Your task to perform on an android device: Check the weather Image 0: 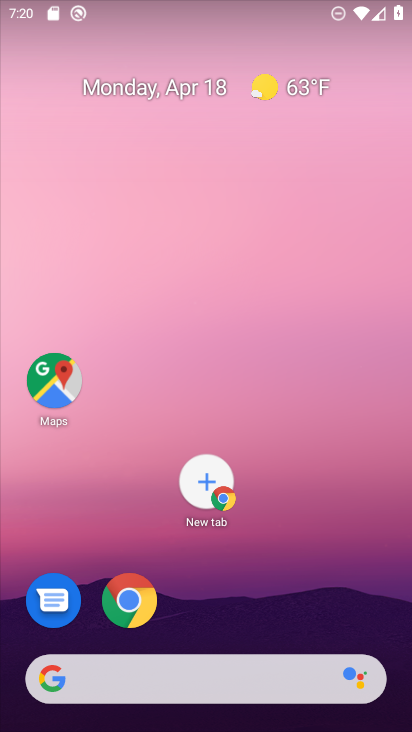
Step 0: click (263, 88)
Your task to perform on an android device: Check the weather Image 1: 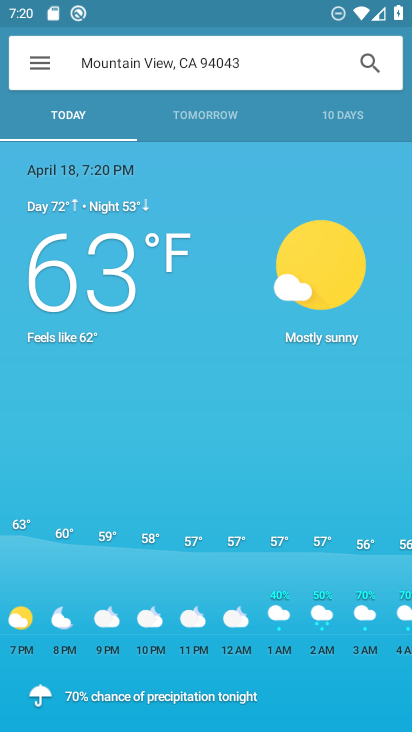
Step 1: task complete